Your task to perform on an android device: Open Google Chrome Image 0: 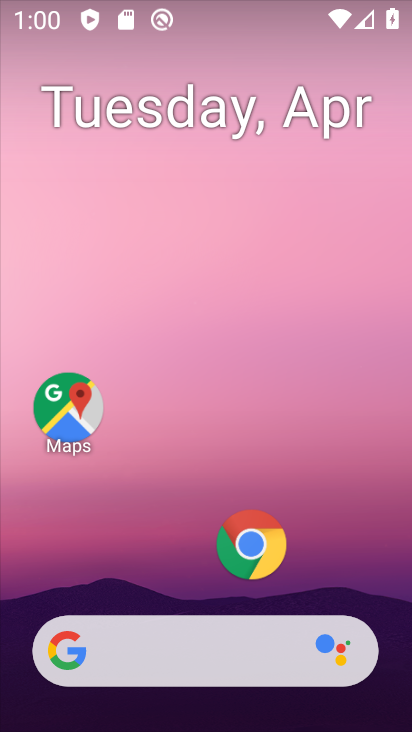
Step 0: drag from (106, 596) to (212, 230)
Your task to perform on an android device: Open Google Chrome Image 1: 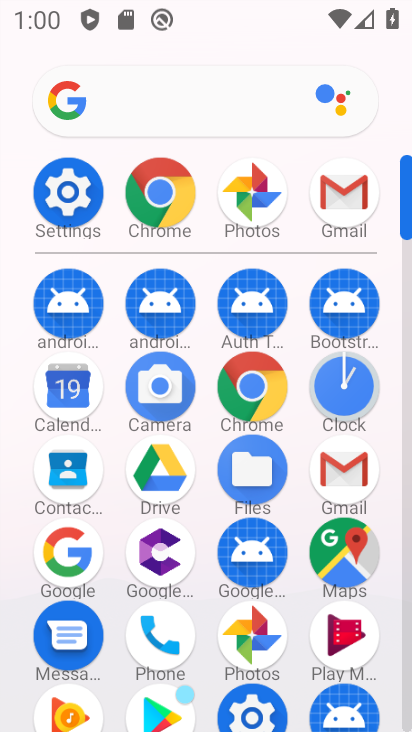
Step 1: click (149, 193)
Your task to perform on an android device: Open Google Chrome Image 2: 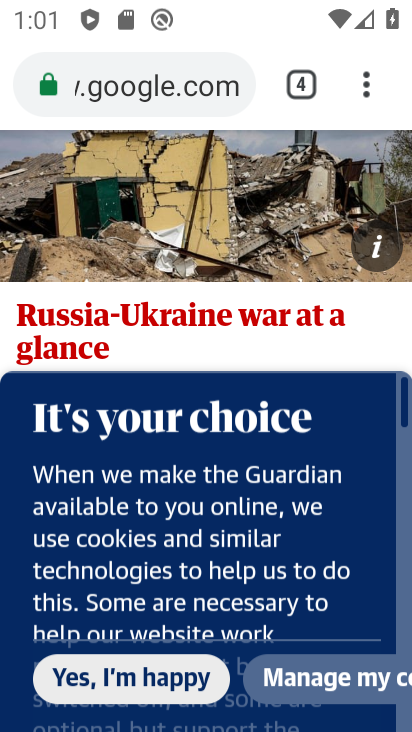
Step 2: task complete